Your task to perform on an android device: set default search engine in the chrome app Image 0: 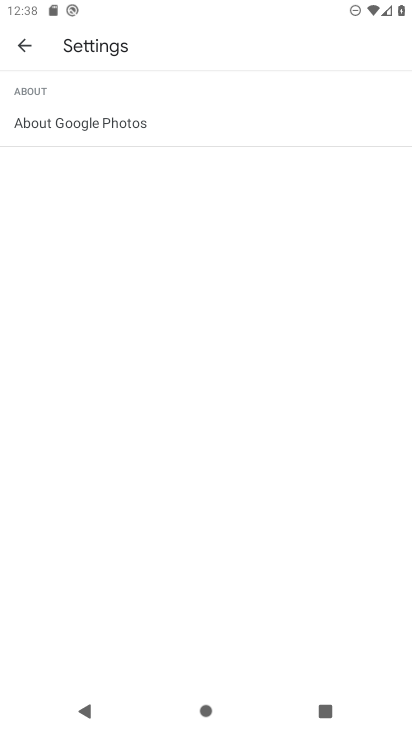
Step 0: press home button
Your task to perform on an android device: set default search engine in the chrome app Image 1: 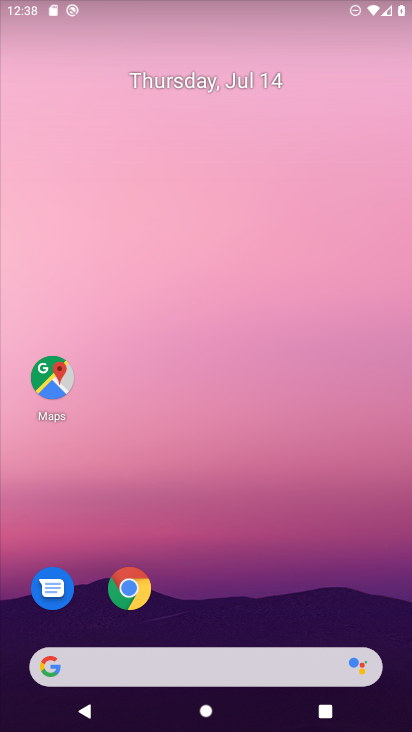
Step 1: click (133, 592)
Your task to perform on an android device: set default search engine in the chrome app Image 2: 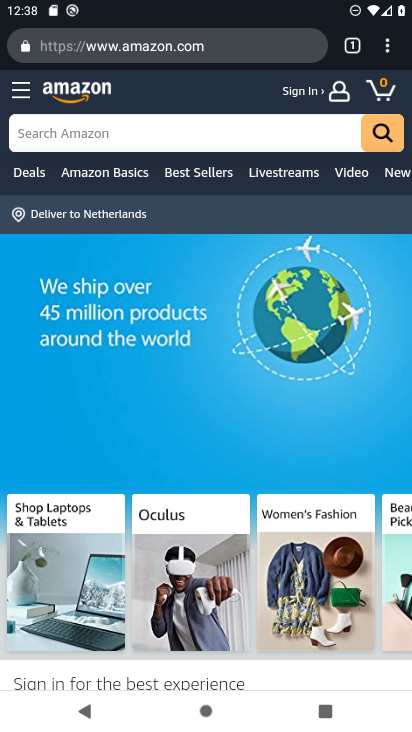
Step 2: drag from (385, 51) to (251, 594)
Your task to perform on an android device: set default search engine in the chrome app Image 3: 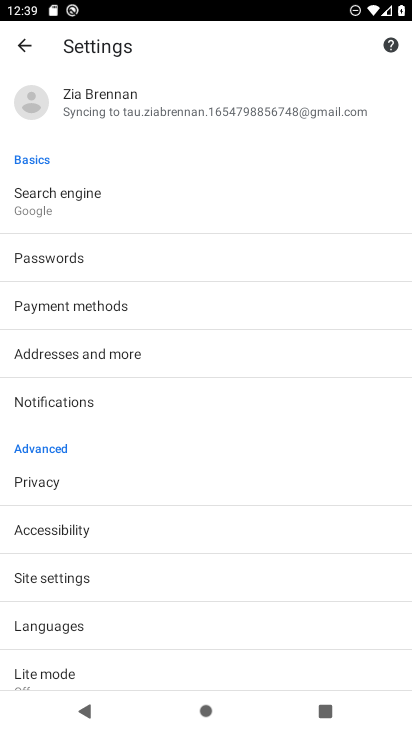
Step 3: click (63, 209)
Your task to perform on an android device: set default search engine in the chrome app Image 4: 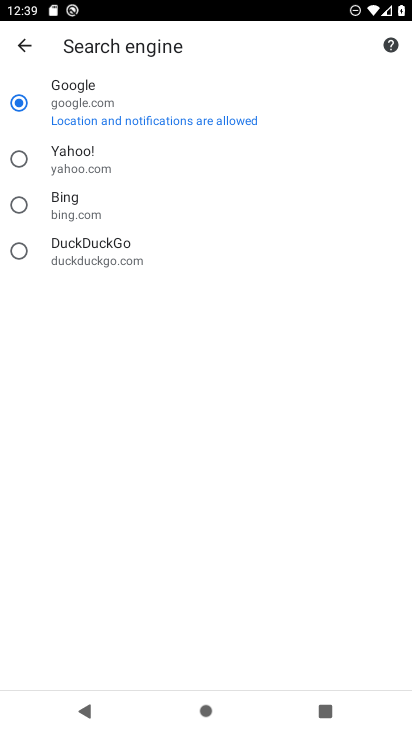
Step 4: click (19, 155)
Your task to perform on an android device: set default search engine in the chrome app Image 5: 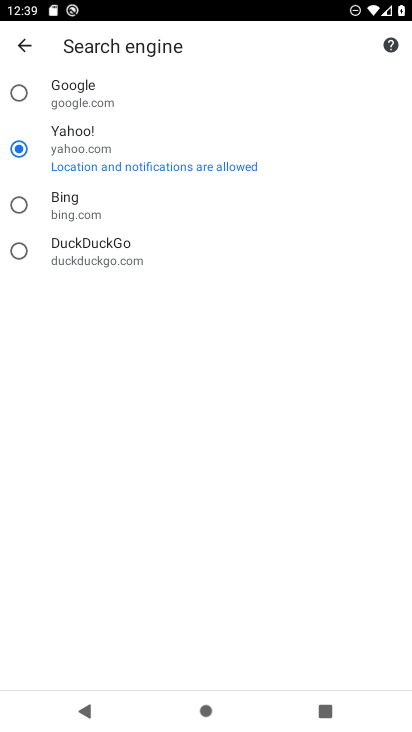
Step 5: task complete